Your task to perform on an android device: Open battery settings Image 0: 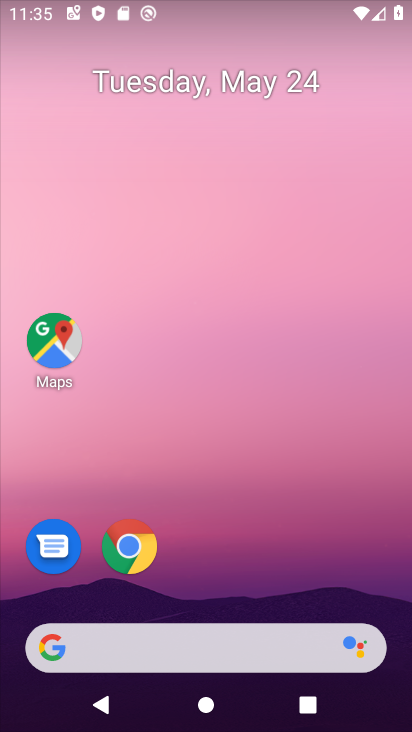
Step 0: drag from (277, 596) to (265, 115)
Your task to perform on an android device: Open battery settings Image 1: 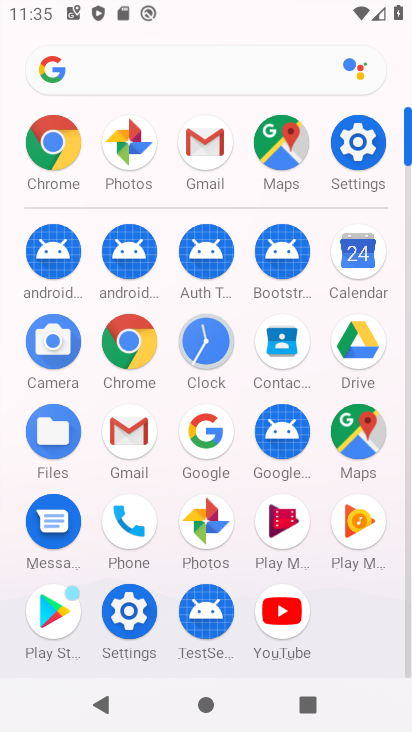
Step 1: click (350, 136)
Your task to perform on an android device: Open battery settings Image 2: 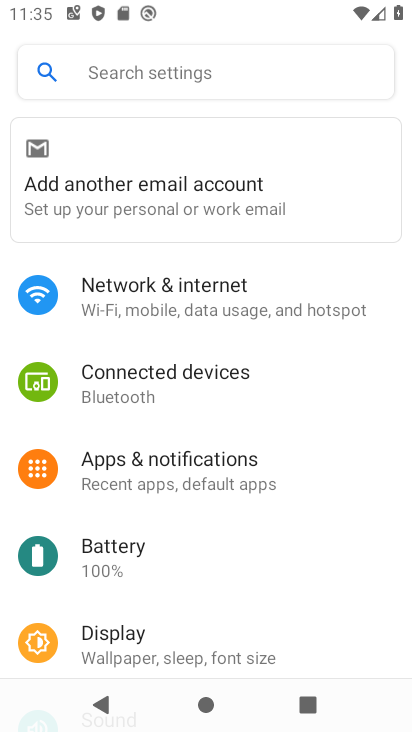
Step 2: click (132, 570)
Your task to perform on an android device: Open battery settings Image 3: 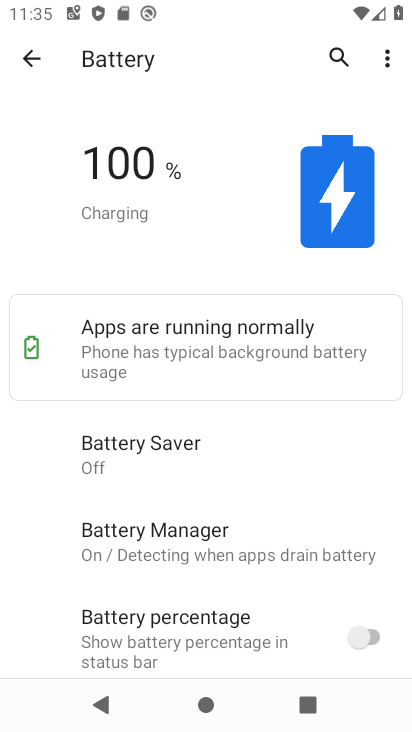
Step 3: task complete